Your task to perform on an android device: Open Google Image 0: 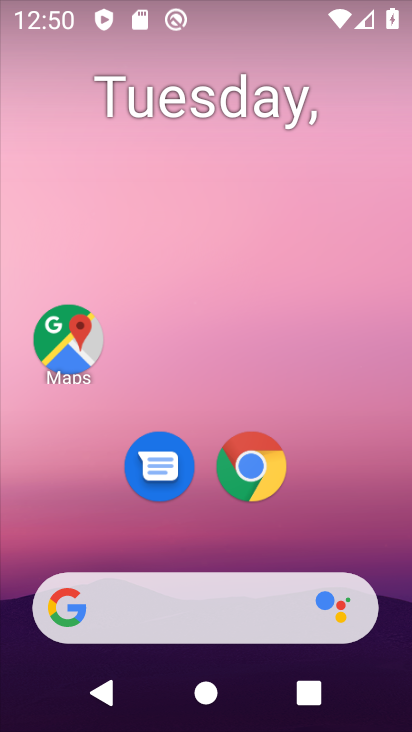
Step 0: click (229, 622)
Your task to perform on an android device: Open Google Image 1: 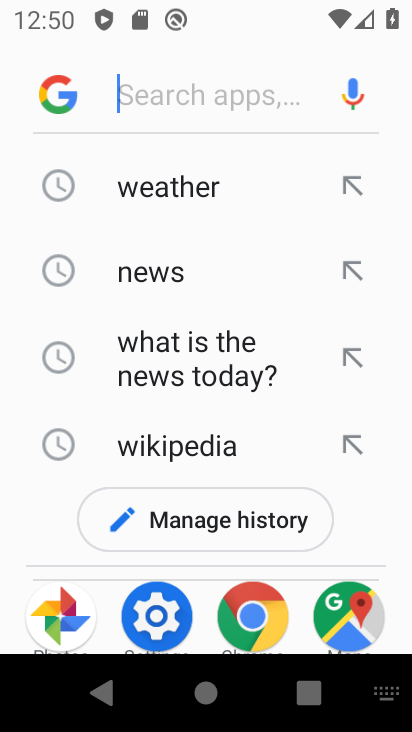
Step 1: type "google.com"
Your task to perform on an android device: Open Google Image 2: 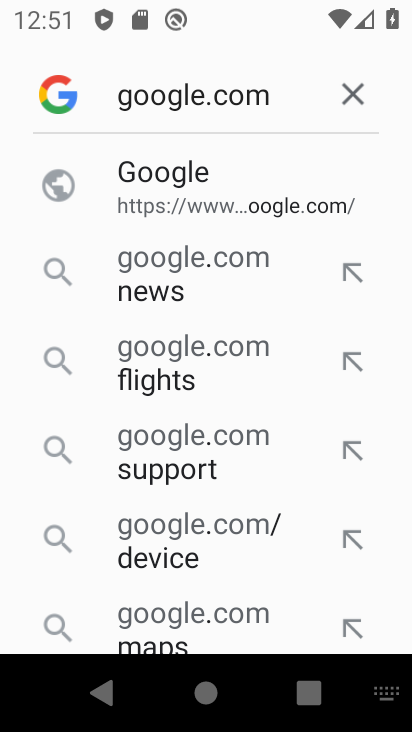
Step 2: click (176, 212)
Your task to perform on an android device: Open Google Image 3: 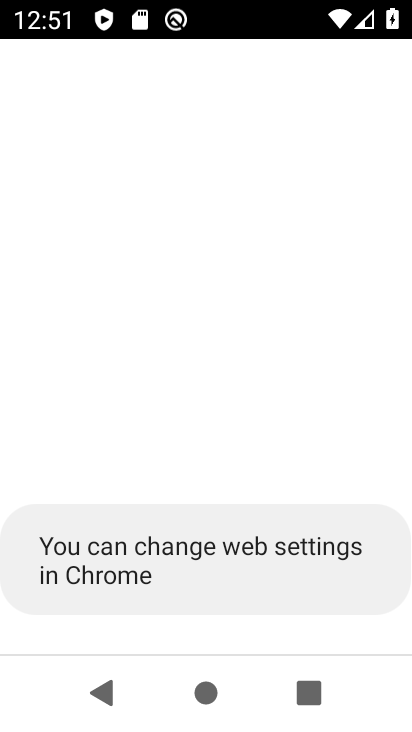
Step 3: task complete